Your task to perform on an android device: Open Chrome and go to the settings page Image 0: 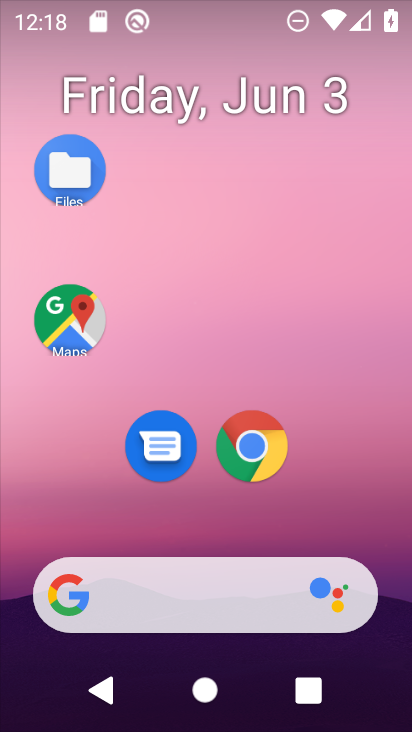
Step 0: drag from (264, 653) to (198, 112)
Your task to perform on an android device: Open Chrome and go to the settings page Image 1: 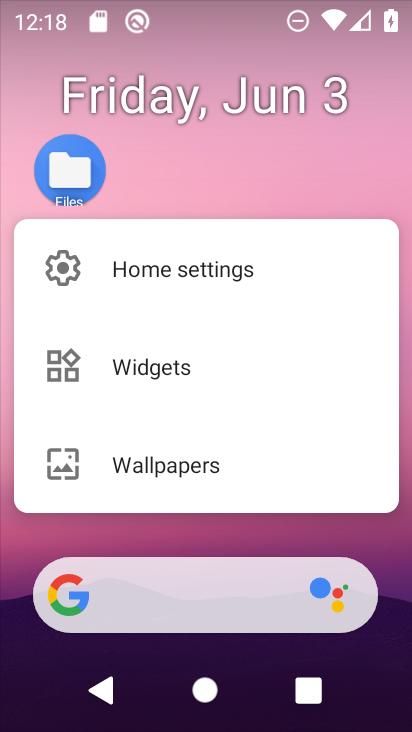
Step 1: drag from (248, 613) to (201, 176)
Your task to perform on an android device: Open Chrome and go to the settings page Image 2: 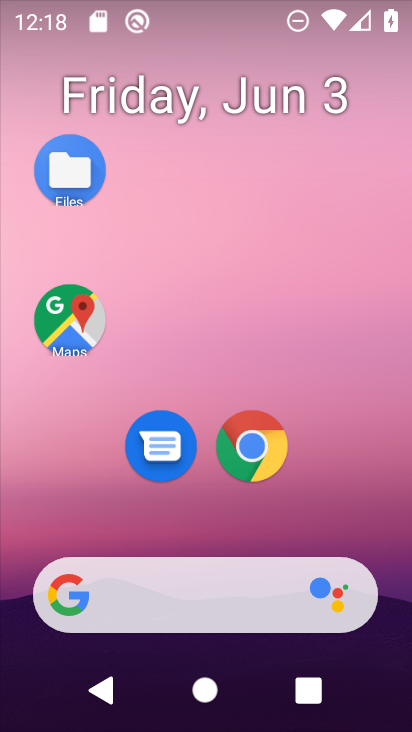
Step 2: click (201, 176)
Your task to perform on an android device: Open Chrome and go to the settings page Image 3: 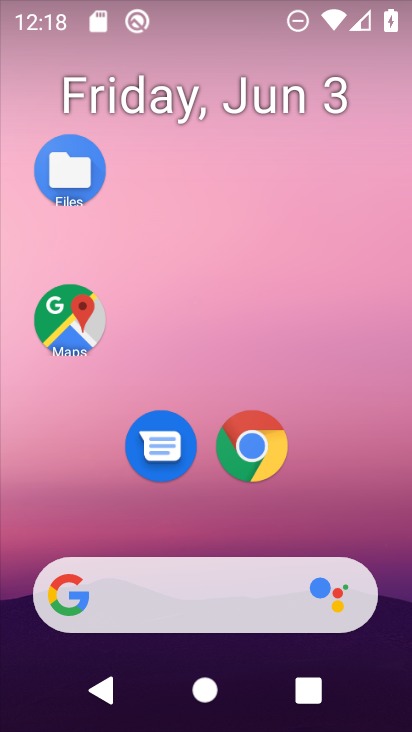
Step 3: drag from (247, 681) to (159, 131)
Your task to perform on an android device: Open Chrome and go to the settings page Image 4: 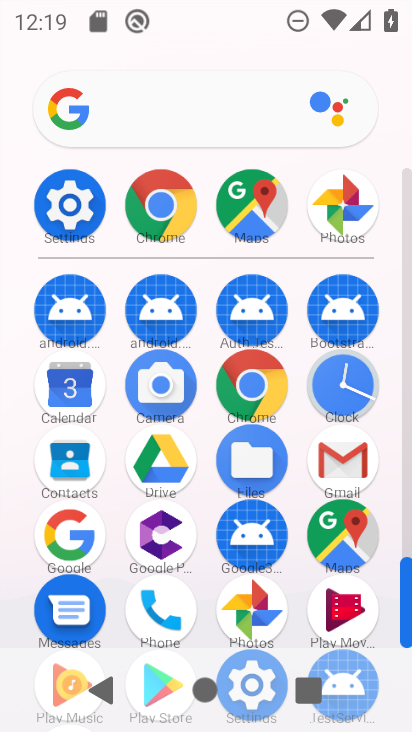
Step 4: click (151, 208)
Your task to perform on an android device: Open Chrome and go to the settings page Image 5: 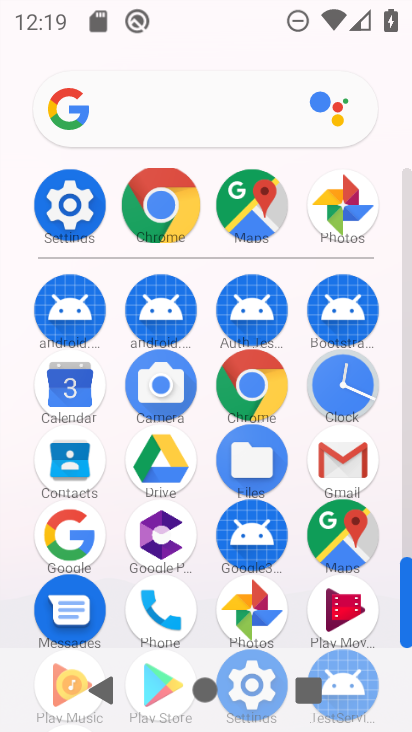
Step 5: click (153, 208)
Your task to perform on an android device: Open Chrome and go to the settings page Image 6: 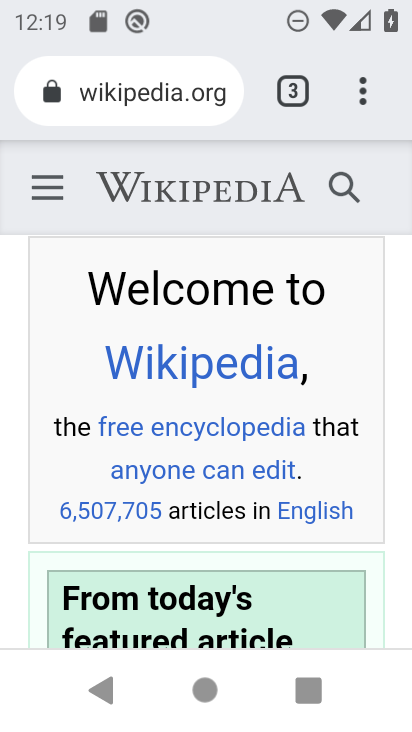
Step 6: drag from (352, 85) to (66, 459)
Your task to perform on an android device: Open Chrome and go to the settings page Image 7: 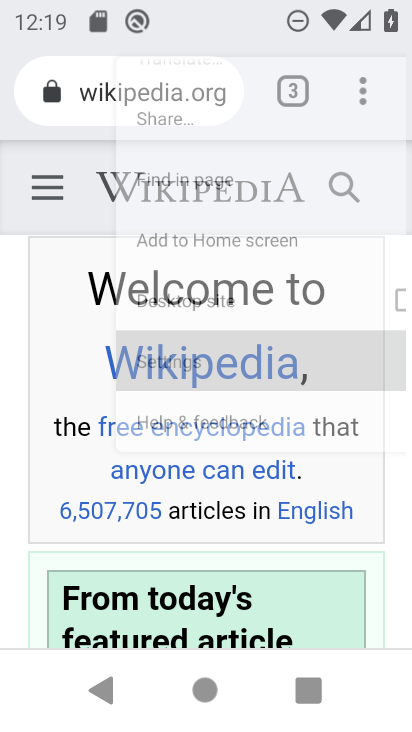
Step 7: click (66, 459)
Your task to perform on an android device: Open Chrome and go to the settings page Image 8: 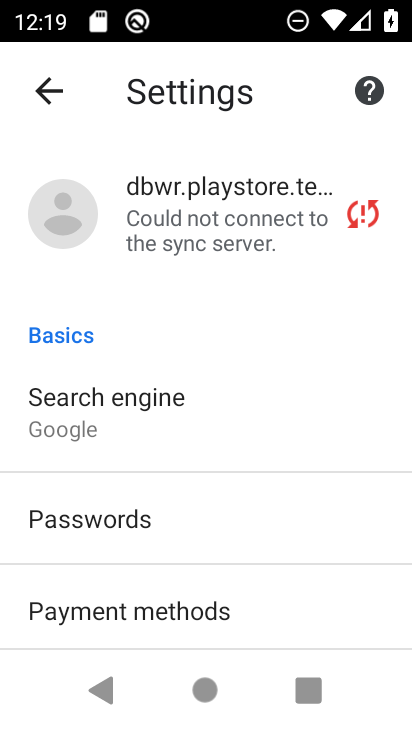
Step 8: task complete